Your task to perform on an android device: turn on data saver in the chrome app Image 0: 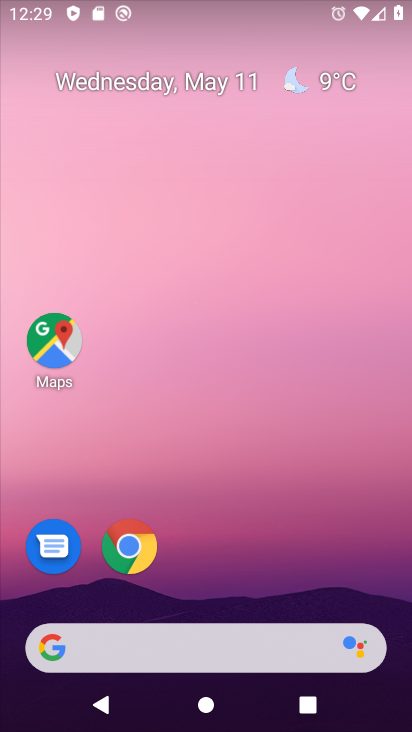
Step 0: drag from (198, 583) to (256, 10)
Your task to perform on an android device: turn on data saver in the chrome app Image 1: 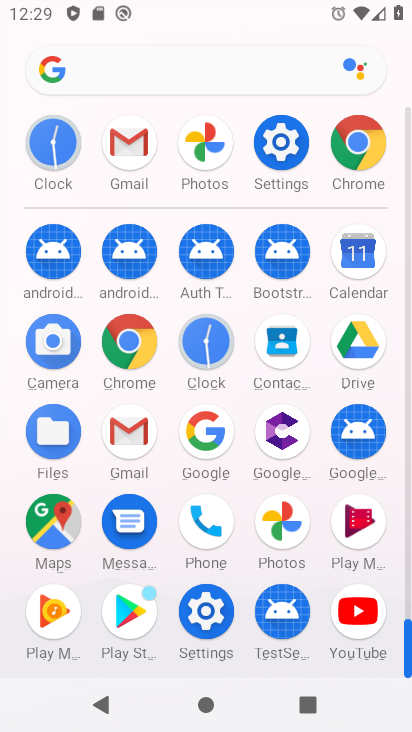
Step 1: click (129, 349)
Your task to perform on an android device: turn on data saver in the chrome app Image 2: 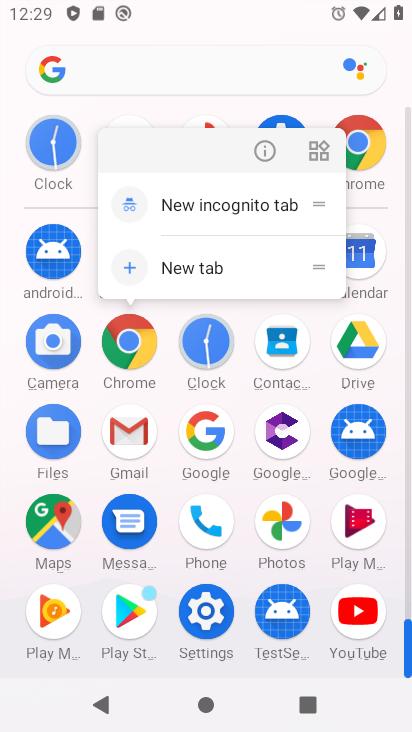
Step 2: click (261, 159)
Your task to perform on an android device: turn on data saver in the chrome app Image 3: 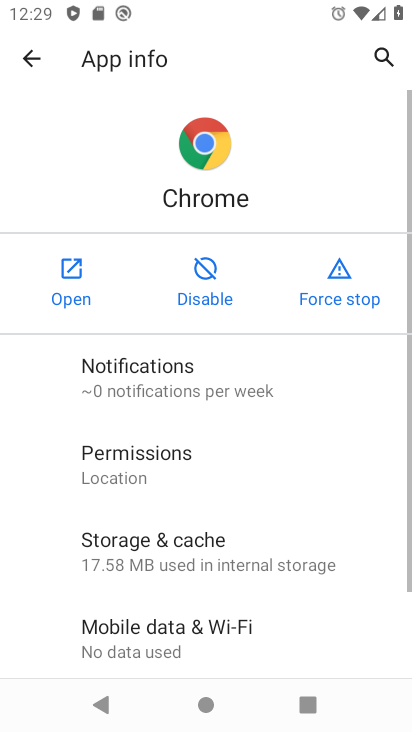
Step 3: click (78, 295)
Your task to perform on an android device: turn on data saver in the chrome app Image 4: 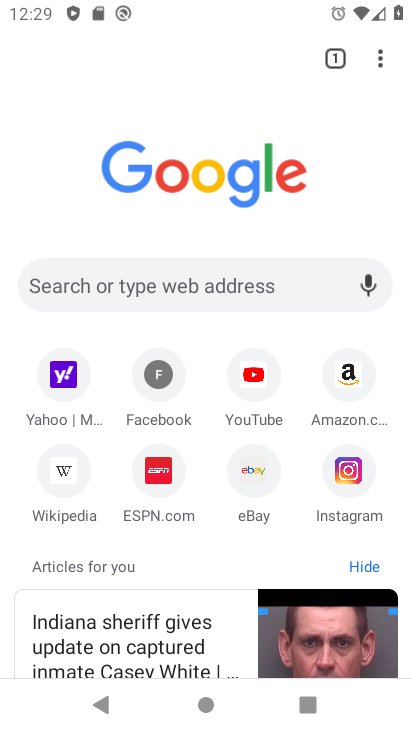
Step 4: drag from (202, 561) to (241, 223)
Your task to perform on an android device: turn on data saver in the chrome app Image 5: 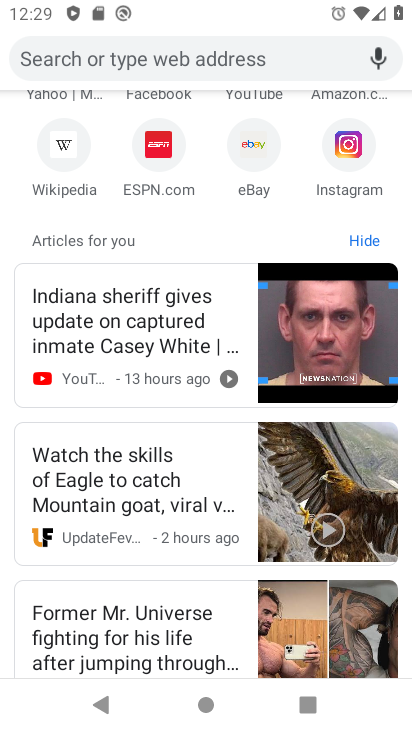
Step 5: drag from (210, 187) to (5, 485)
Your task to perform on an android device: turn on data saver in the chrome app Image 6: 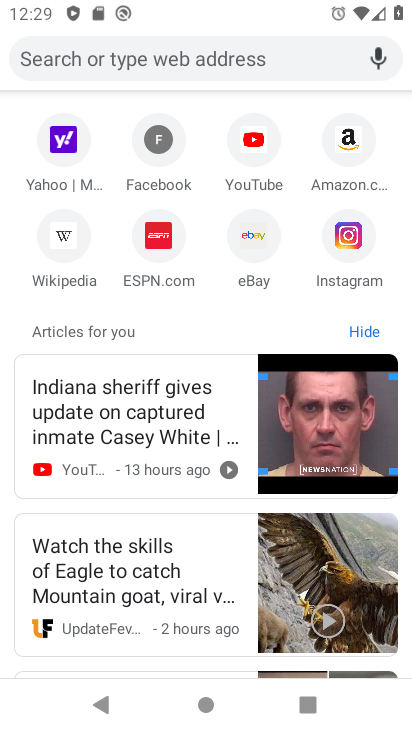
Step 6: drag from (199, 587) to (199, 299)
Your task to perform on an android device: turn on data saver in the chrome app Image 7: 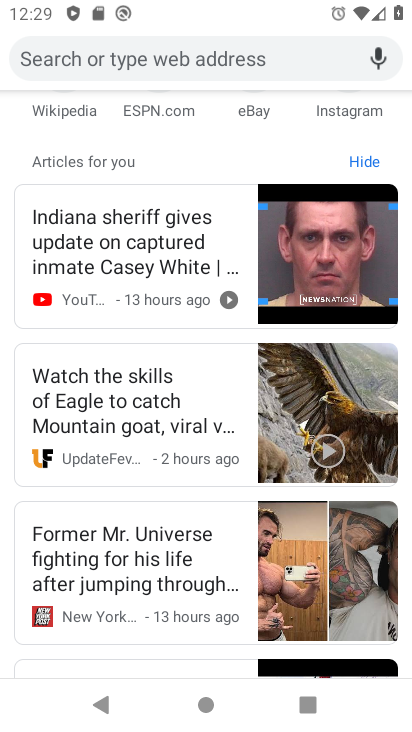
Step 7: drag from (273, 164) to (320, 685)
Your task to perform on an android device: turn on data saver in the chrome app Image 8: 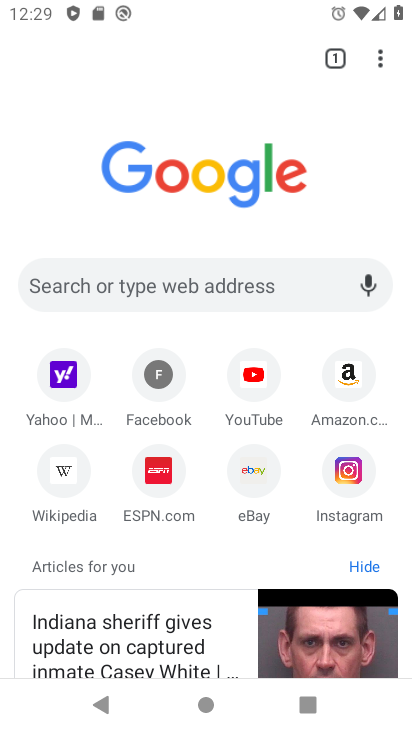
Step 8: drag from (388, 51) to (222, 485)
Your task to perform on an android device: turn on data saver in the chrome app Image 9: 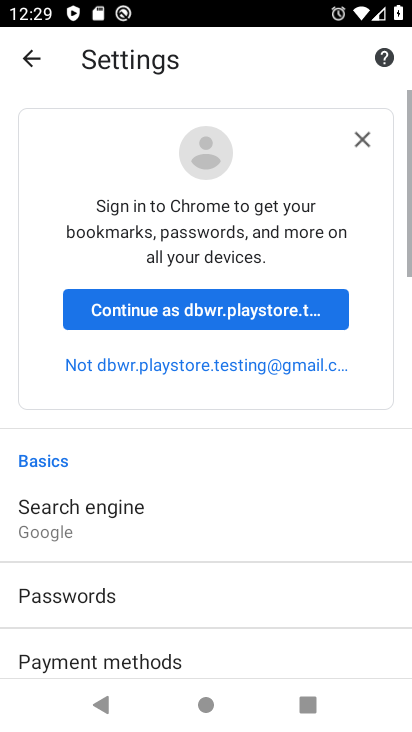
Step 9: drag from (223, 523) to (232, 136)
Your task to perform on an android device: turn on data saver in the chrome app Image 10: 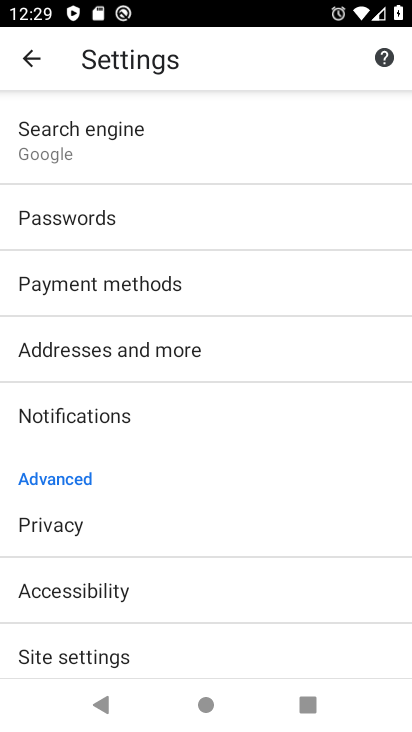
Step 10: drag from (113, 648) to (237, 192)
Your task to perform on an android device: turn on data saver in the chrome app Image 11: 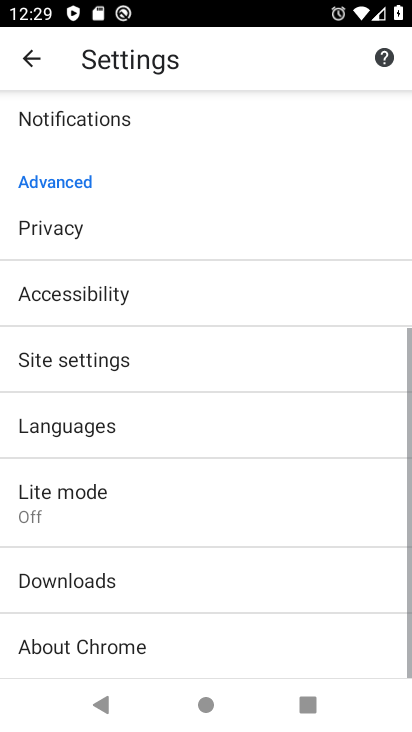
Step 11: click (96, 494)
Your task to perform on an android device: turn on data saver in the chrome app Image 12: 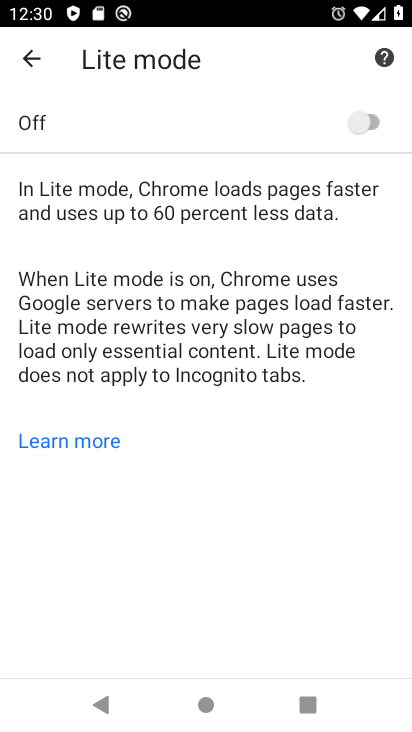
Step 12: click (209, 120)
Your task to perform on an android device: turn on data saver in the chrome app Image 13: 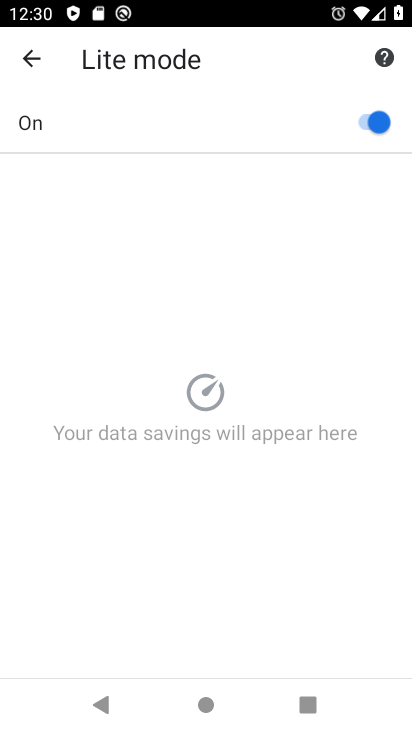
Step 13: task complete